Your task to perform on an android device: Search for alienware area 51 on target.com, select the first entry, add it to the cart, then select checkout. Image 0: 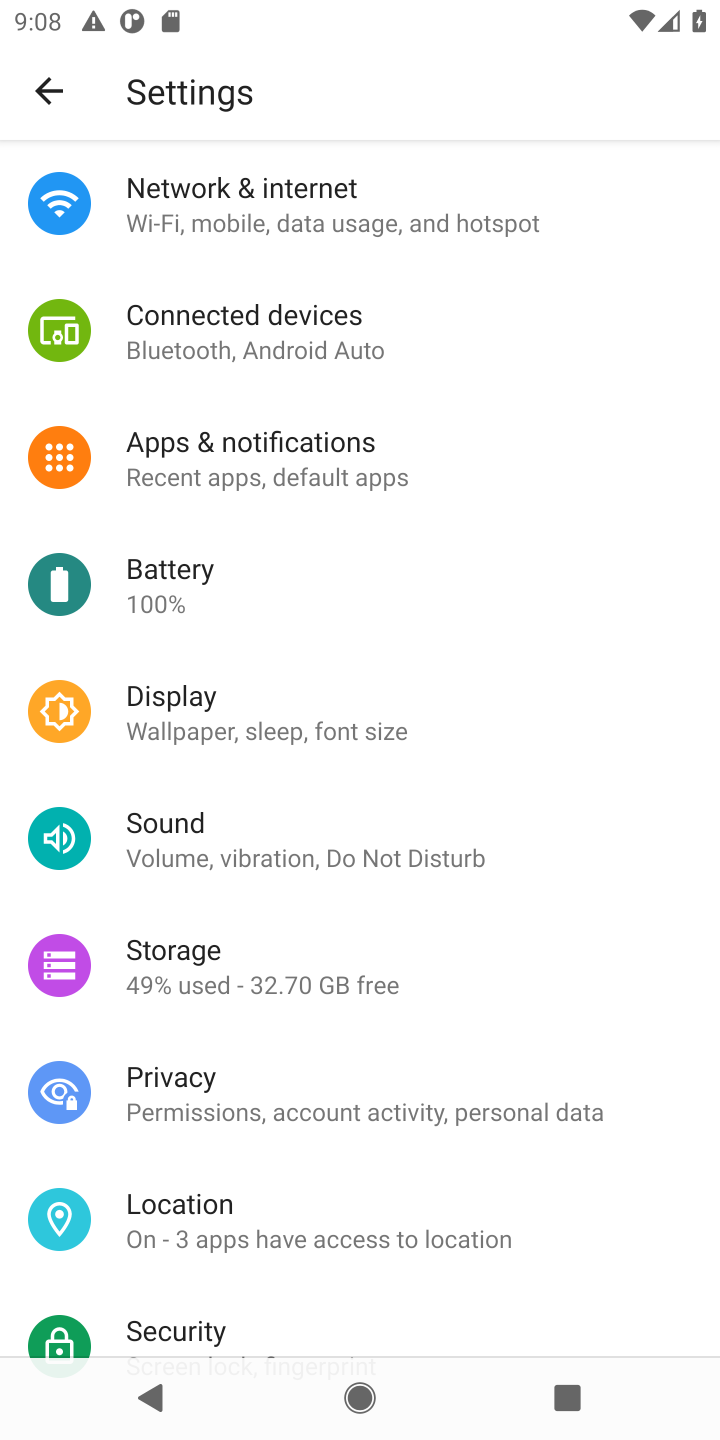
Step 0: press home button
Your task to perform on an android device: Search for alienware area 51 on target.com, select the first entry, add it to the cart, then select checkout. Image 1: 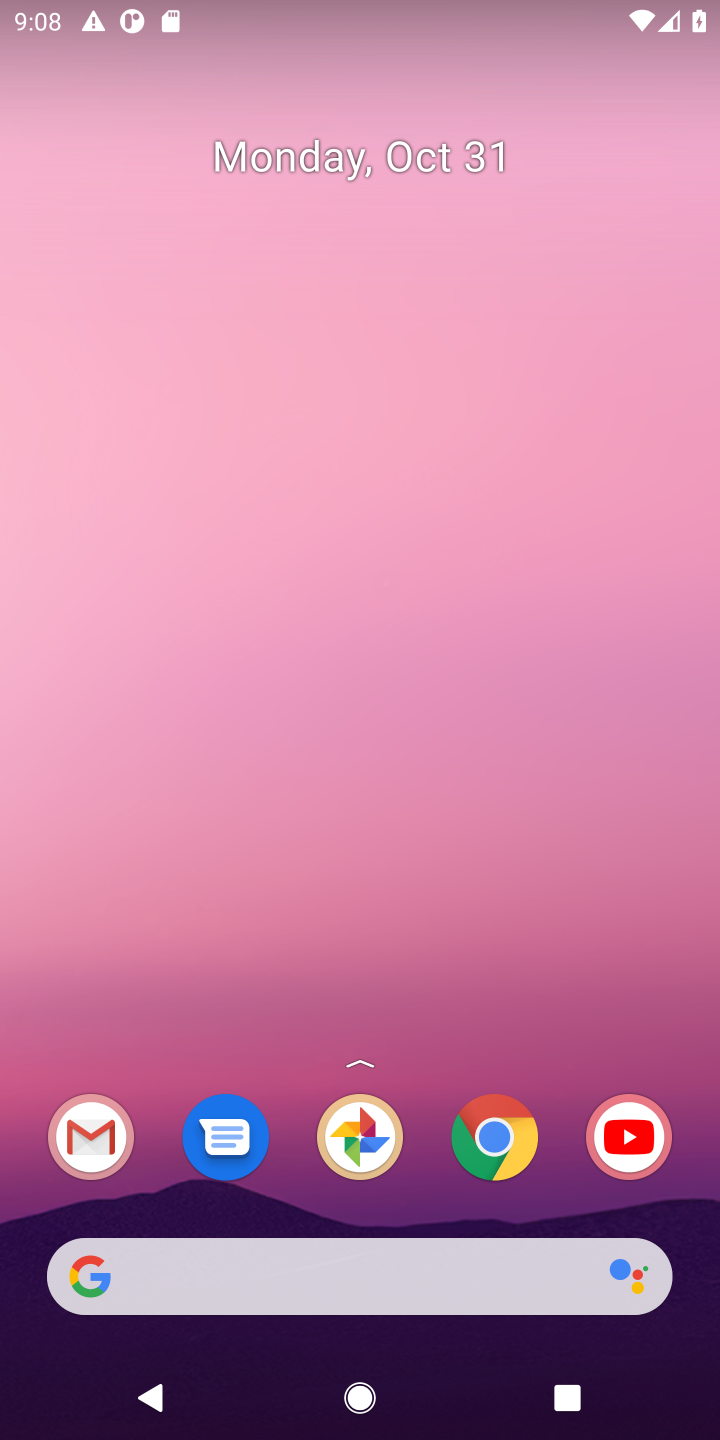
Step 1: click (499, 1166)
Your task to perform on an android device: Search for alienware area 51 on target.com, select the first entry, add it to the cart, then select checkout. Image 2: 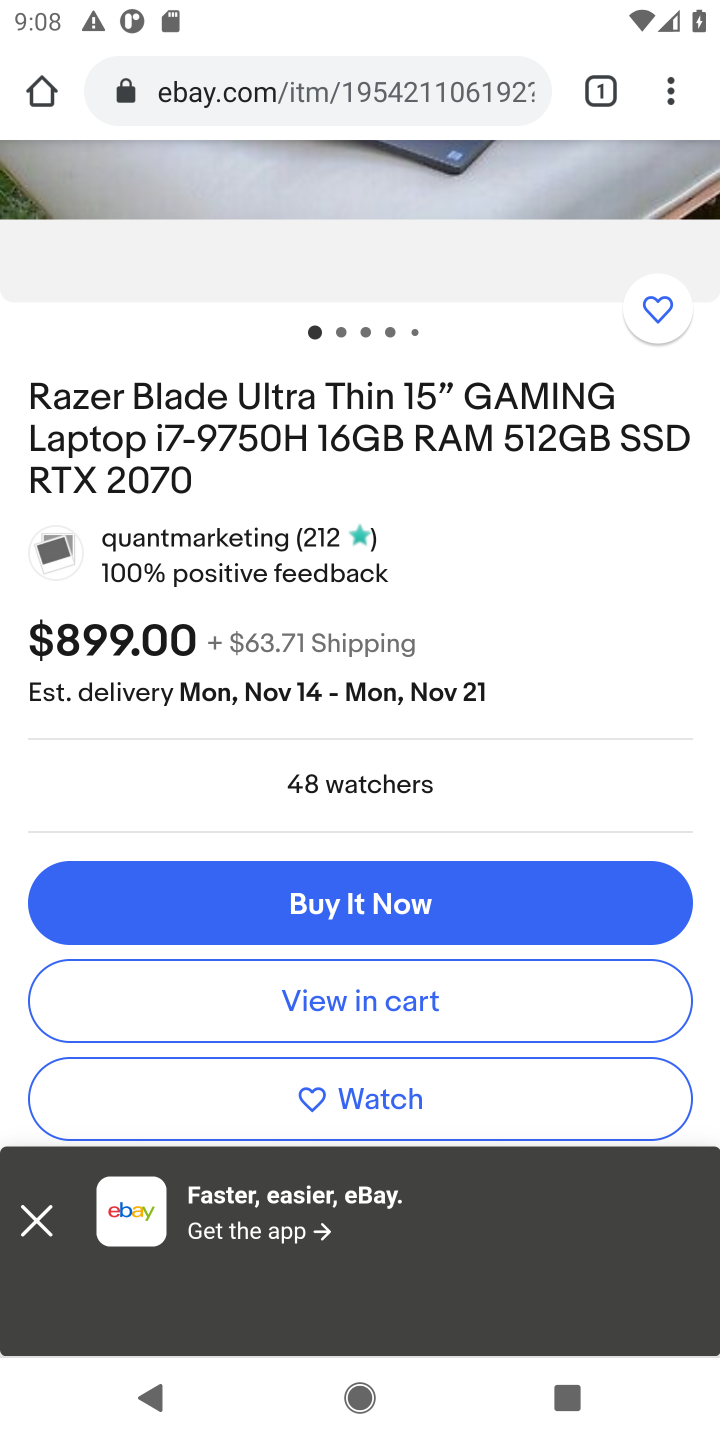
Step 2: click (299, 98)
Your task to perform on an android device: Search for alienware area 51 on target.com, select the first entry, add it to the cart, then select checkout. Image 3: 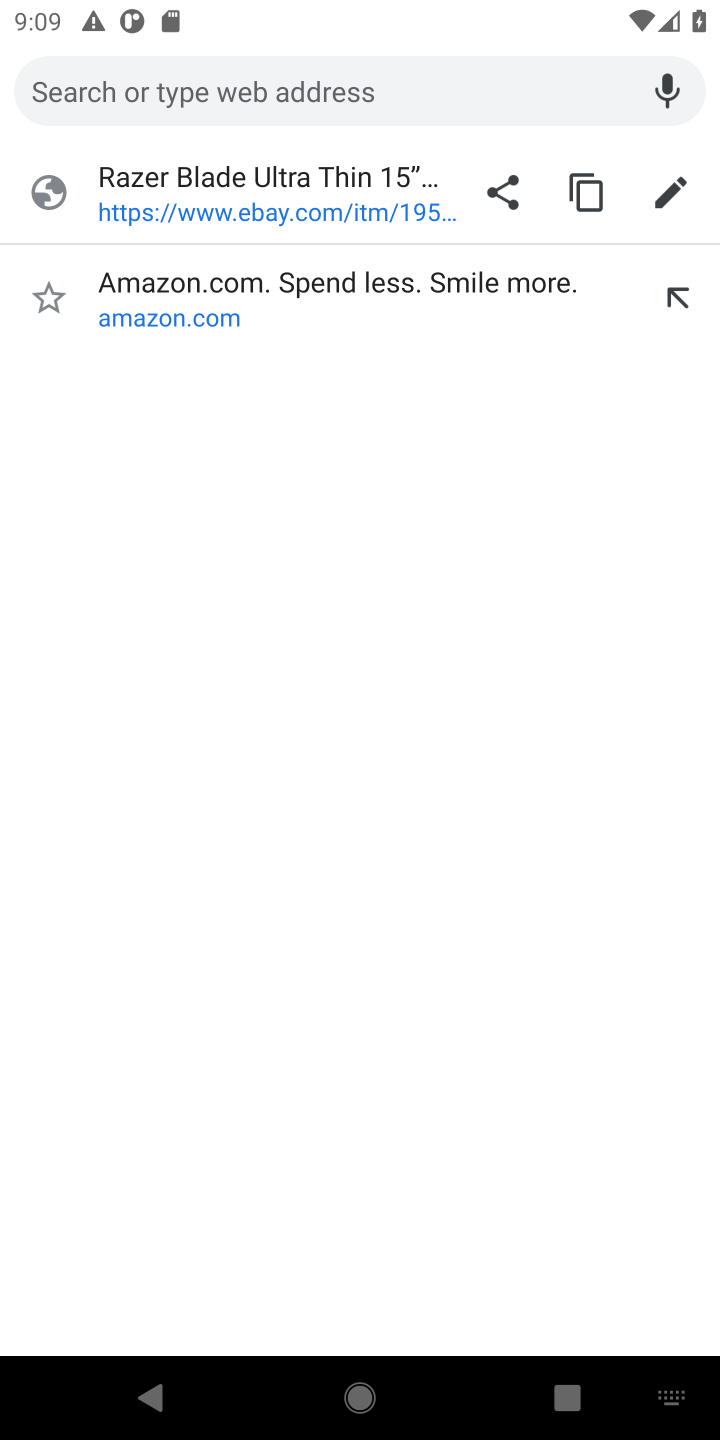
Step 3: type "target.com"
Your task to perform on an android device: Search for alienware area 51 on target.com, select the first entry, add it to the cart, then select checkout. Image 4: 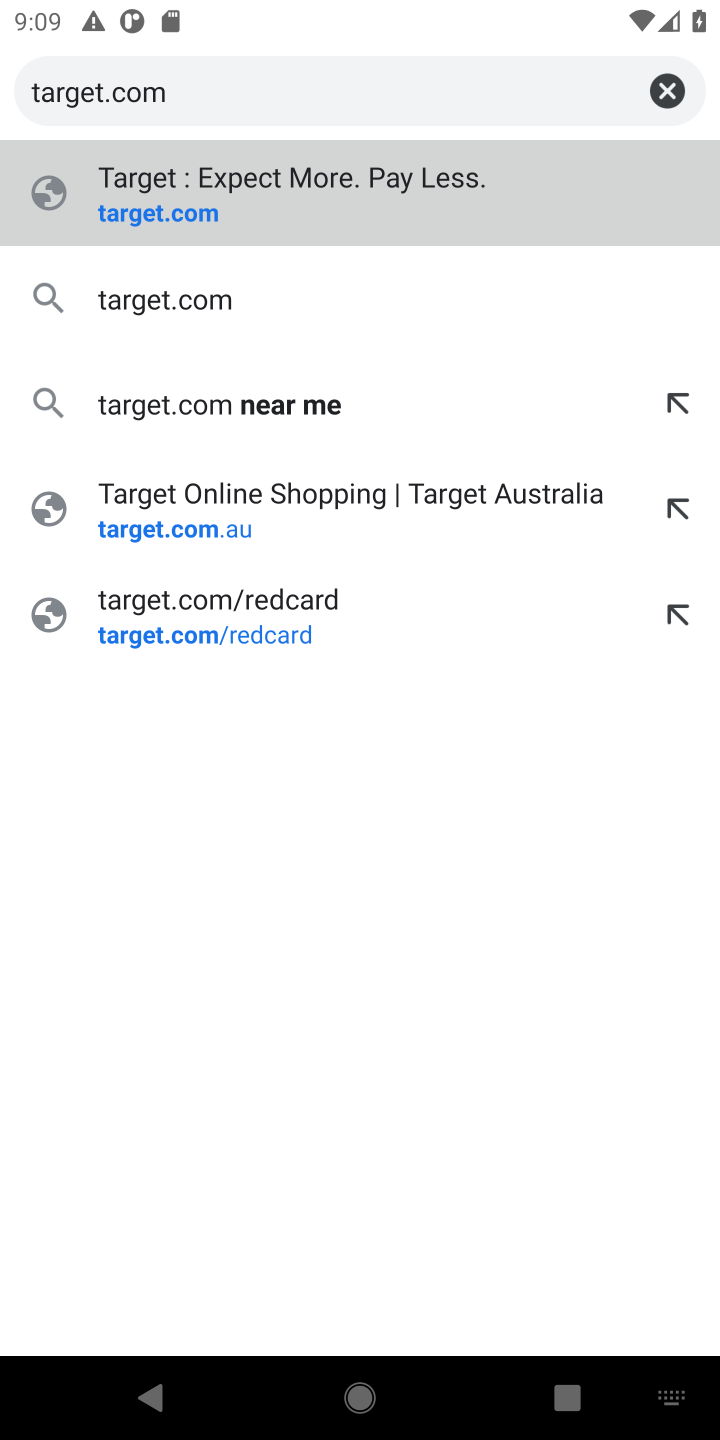
Step 4: click (131, 219)
Your task to perform on an android device: Search for alienware area 51 on target.com, select the first entry, add it to the cart, then select checkout. Image 5: 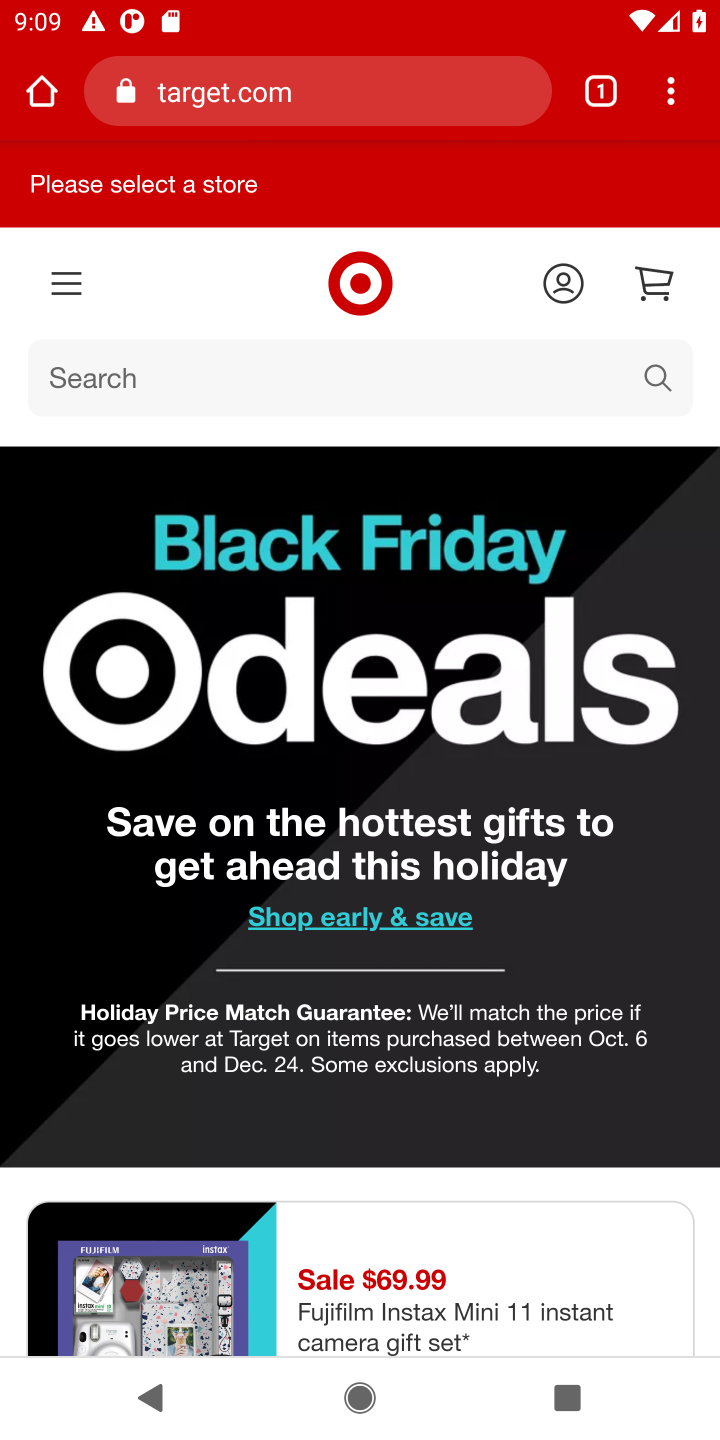
Step 5: click (643, 385)
Your task to perform on an android device: Search for alienware area 51 on target.com, select the first entry, add it to the cart, then select checkout. Image 6: 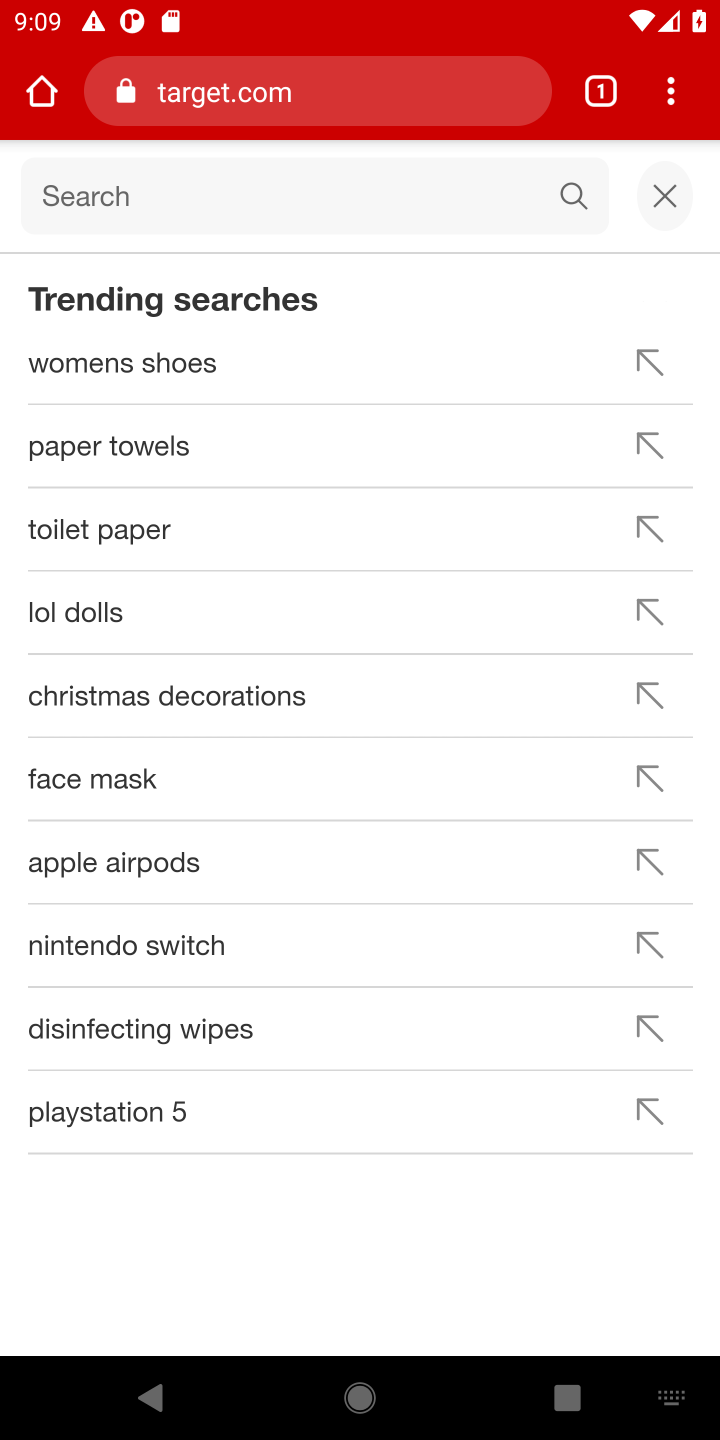
Step 6: type "alienware area 51"
Your task to perform on an android device: Search for alienware area 51 on target.com, select the first entry, add it to the cart, then select checkout. Image 7: 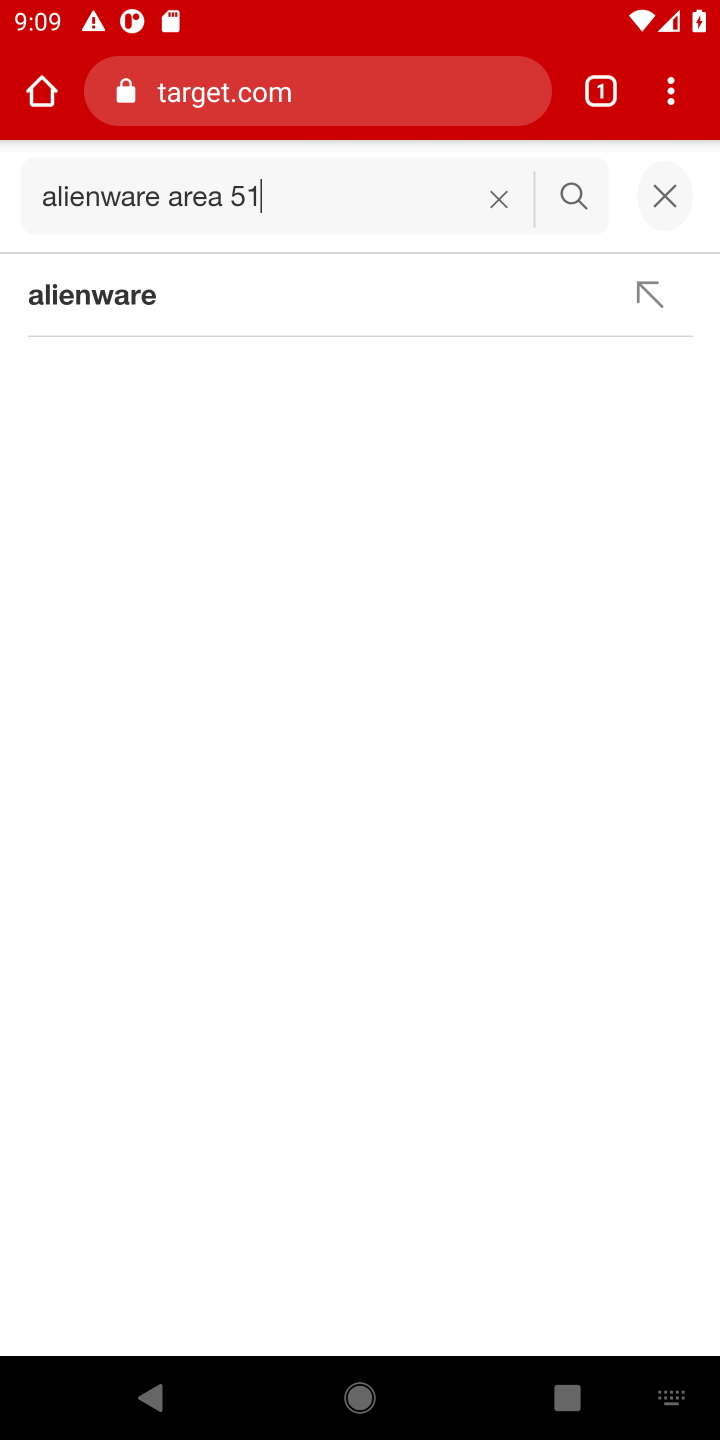
Step 7: click (565, 200)
Your task to perform on an android device: Search for alienware area 51 on target.com, select the first entry, add it to the cart, then select checkout. Image 8: 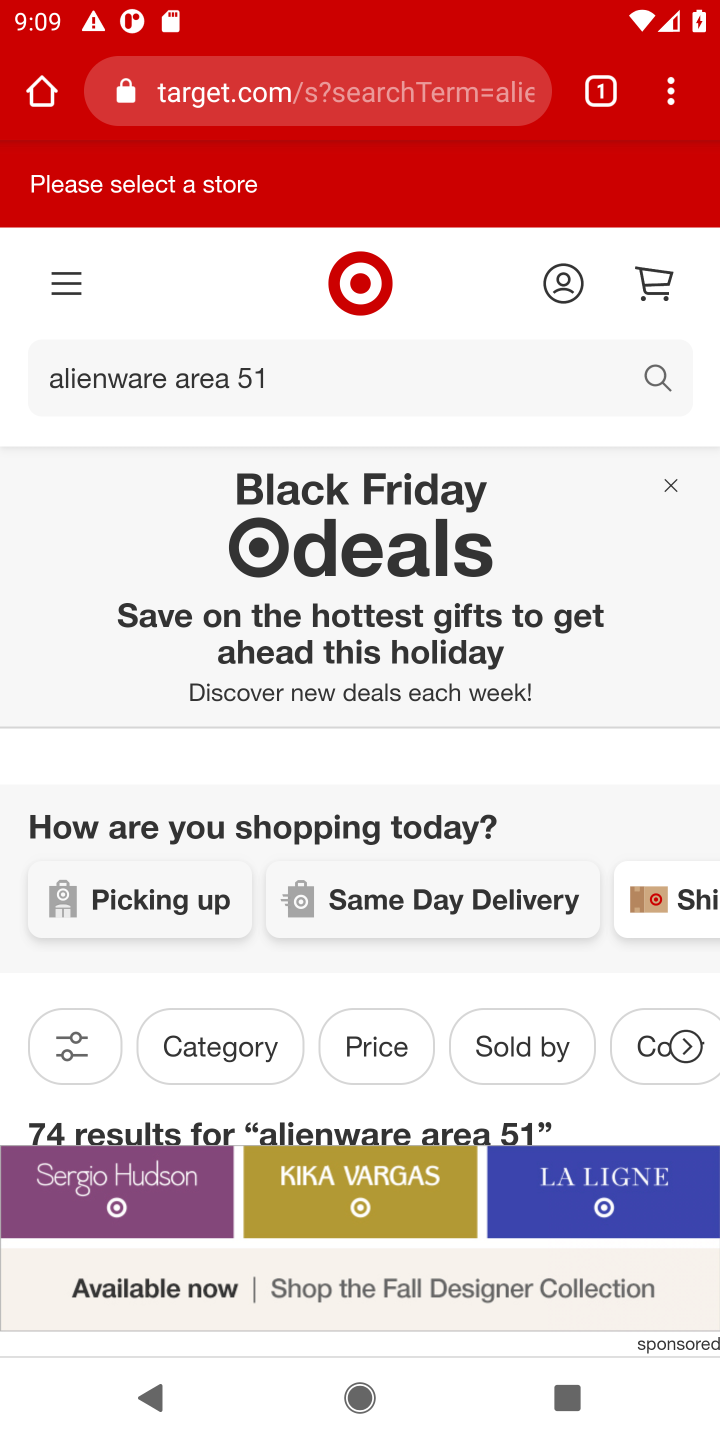
Step 8: task complete